Your task to perform on an android device: Go to internet settings Image 0: 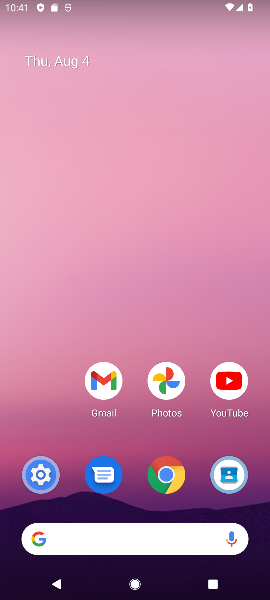
Step 0: click (52, 472)
Your task to perform on an android device: Go to internet settings Image 1: 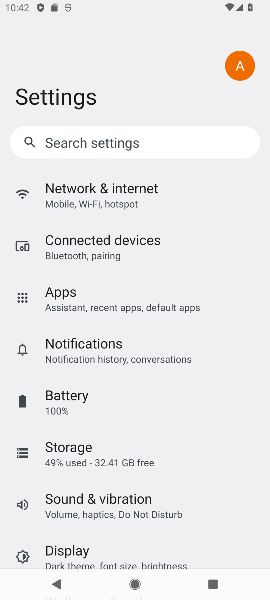
Step 1: click (119, 191)
Your task to perform on an android device: Go to internet settings Image 2: 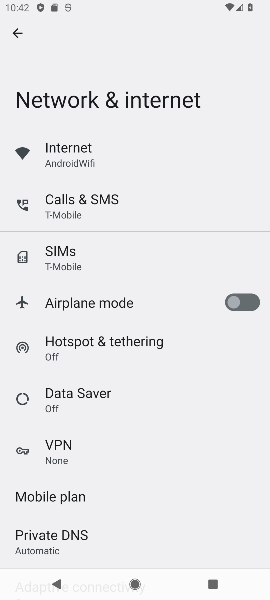
Step 2: task complete